Your task to perform on an android device: check data usage Image 0: 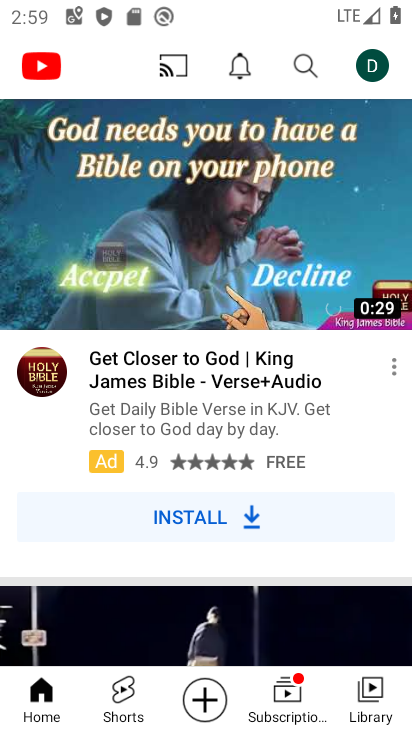
Step 0: press home button
Your task to perform on an android device: check data usage Image 1: 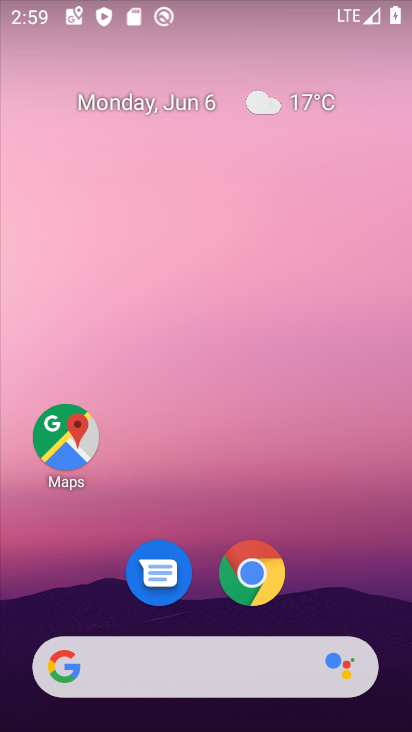
Step 1: drag from (360, 577) to (389, 261)
Your task to perform on an android device: check data usage Image 2: 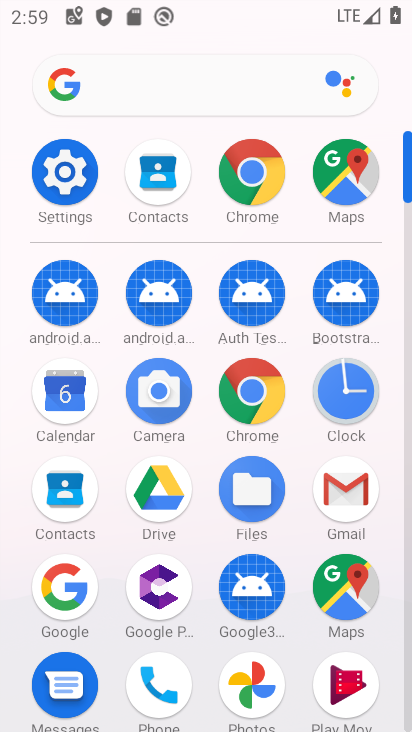
Step 2: click (77, 194)
Your task to perform on an android device: check data usage Image 3: 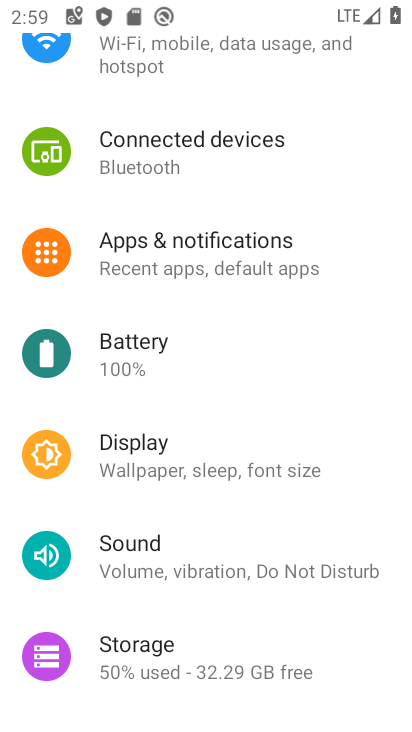
Step 3: drag from (364, 222) to (367, 330)
Your task to perform on an android device: check data usage Image 4: 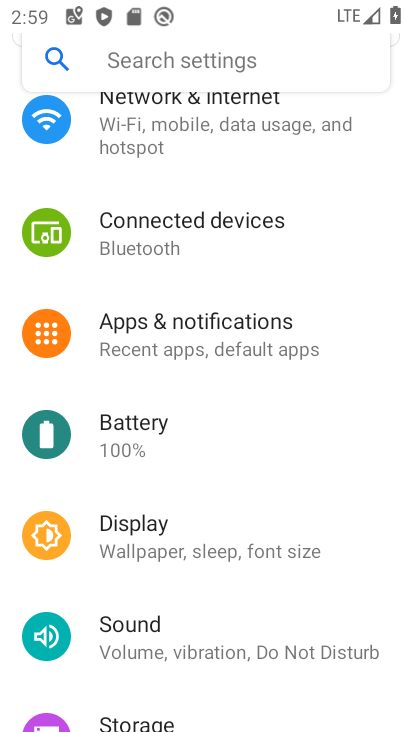
Step 4: drag from (364, 200) to (368, 296)
Your task to perform on an android device: check data usage Image 5: 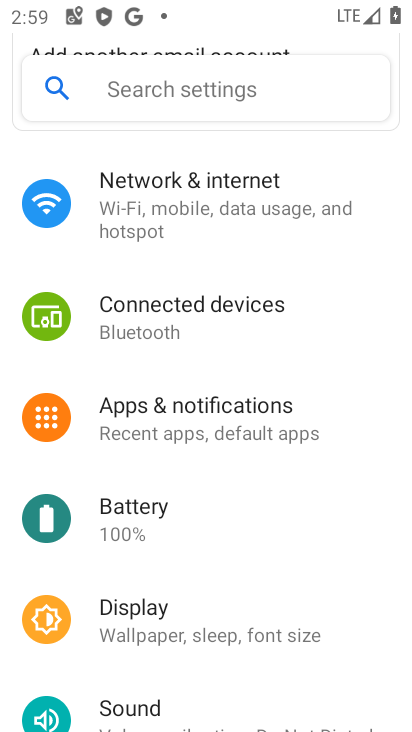
Step 5: drag from (377, 173) to (378, 458)
Your task to perform on an android device: check data usage Image 6: 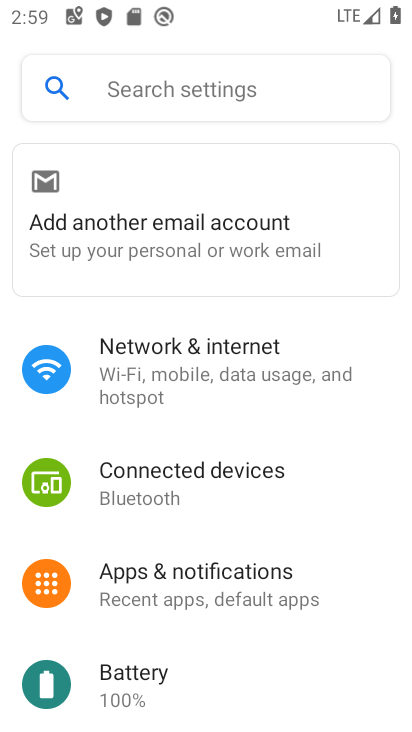
Step 6: drag from (352, 560) to (361, 384)
Your task to perform on an android device: check data usage Image 7: 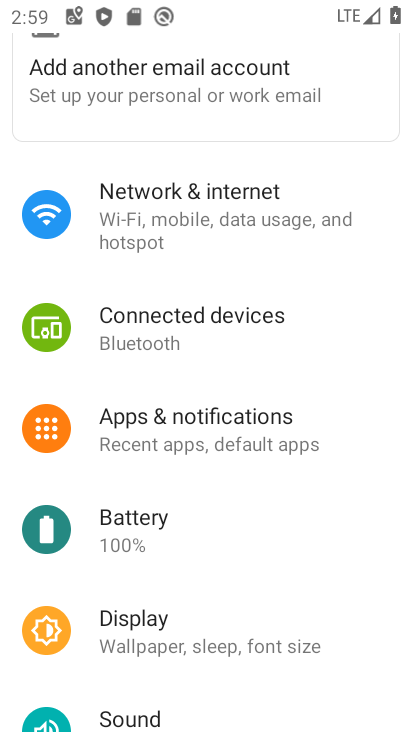
Step 7: drag from (328, 519) to (351, 387)
Your task to perform on an android device: check data usage Image 8: 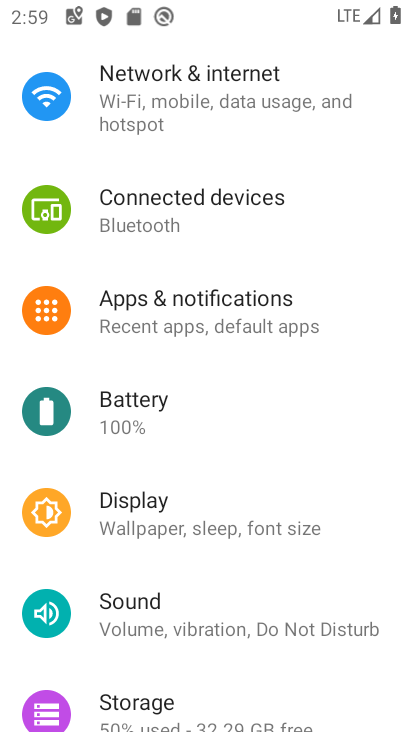
Step 8: drag from (359, 563) to (366, 424)
Your task to perform on an android device: check data usage Image 9: 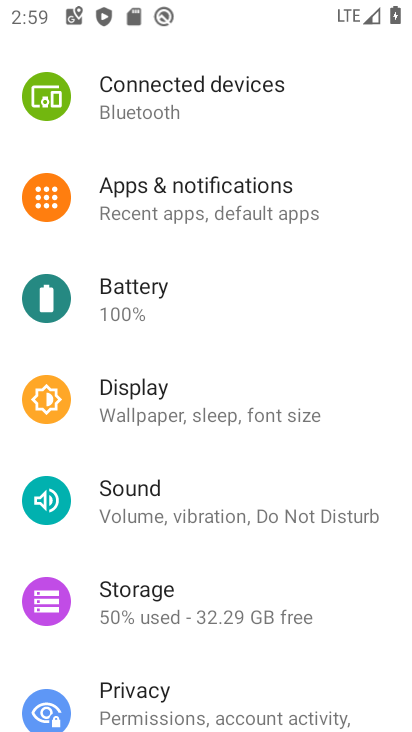
Step 9: drag from (345, 588) to (345, 470)
Your task to perform on an android device: check data usage Image 10: 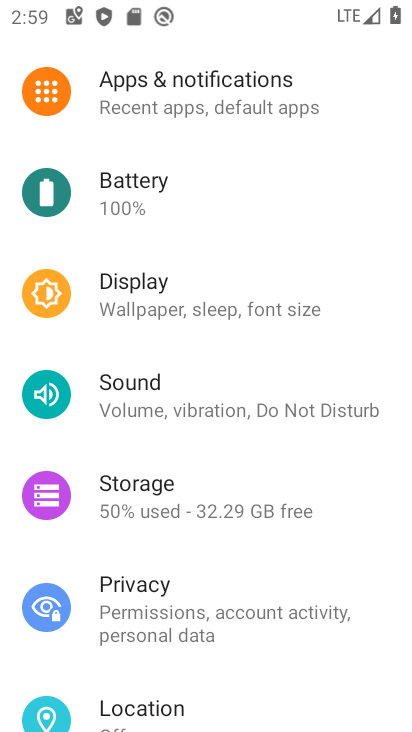
Step 10: drag from (334, 572) to (334, 419)
Your task to perform on an android device: check data usage Image 11: 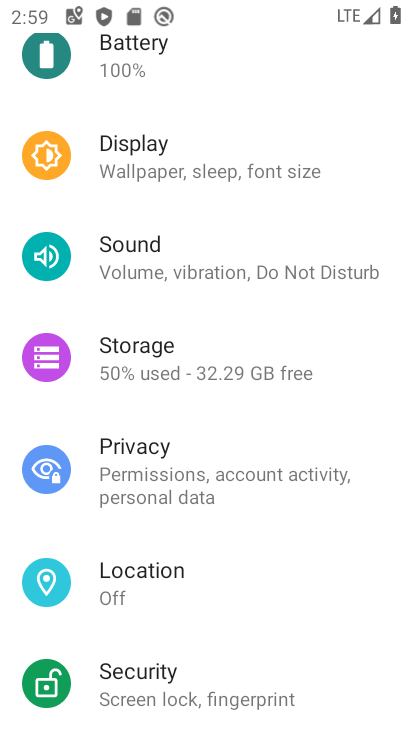
Step 11: click (274, 383)
Your task to perform on an android device: check data usage Image 12: 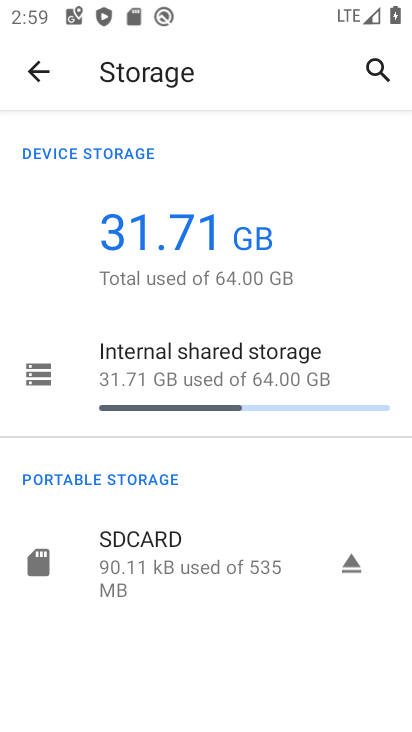
Step 12: task complete